Your task to perform on an android device: open app "YouTube Kids" Image 0: 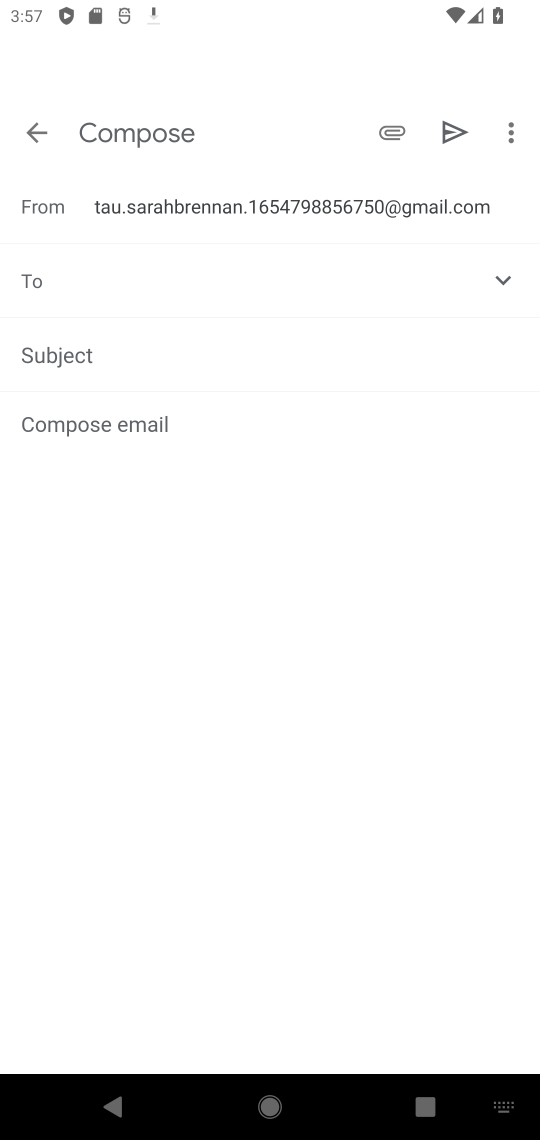
Step 0: press home button
Your task to perform on an android device: open app "YouTube Kids" Image 1: 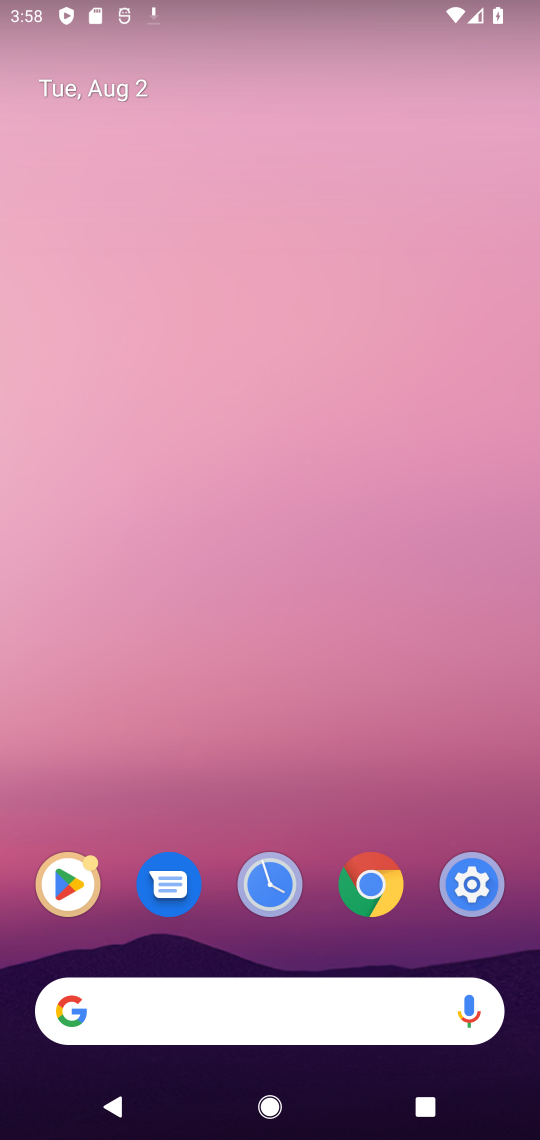
Step 1: click (65, 914)
Your task to perform on an android device: open app "YouTube Kids" Image 2: 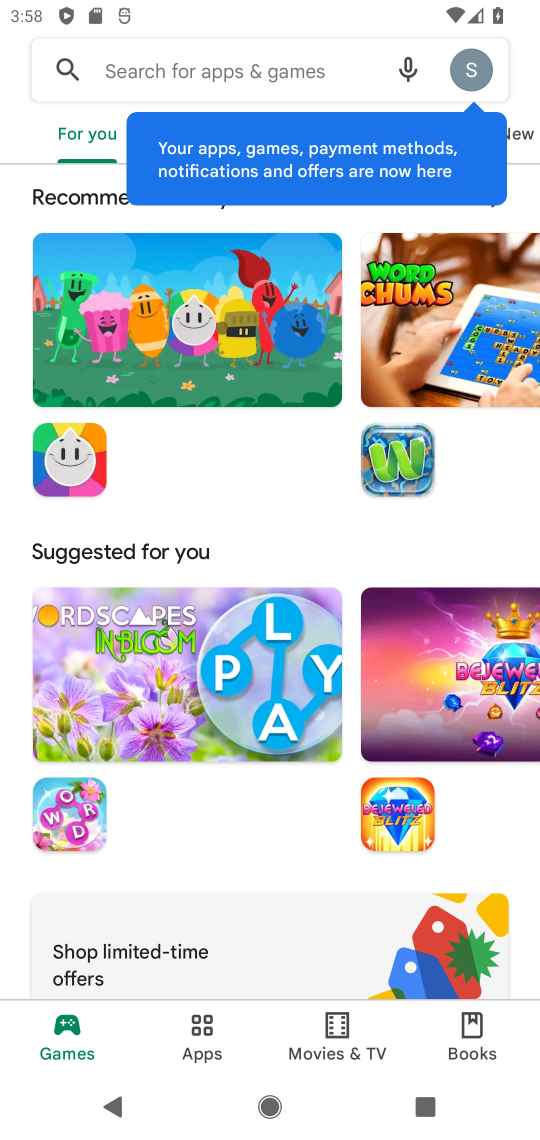
Step 2: click (184, 1043)
Your task to perform on an android device: open app "YouTube Kids" Image 3: 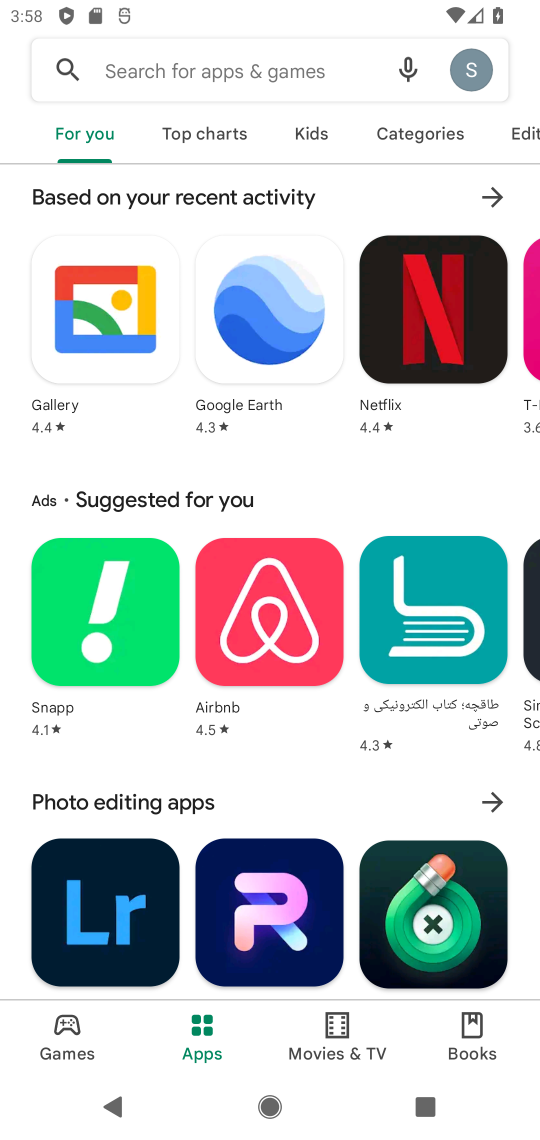
Step 3: click (233, 65)
Your task to perform on an android device: open app "YouTube Kids" Image 4: 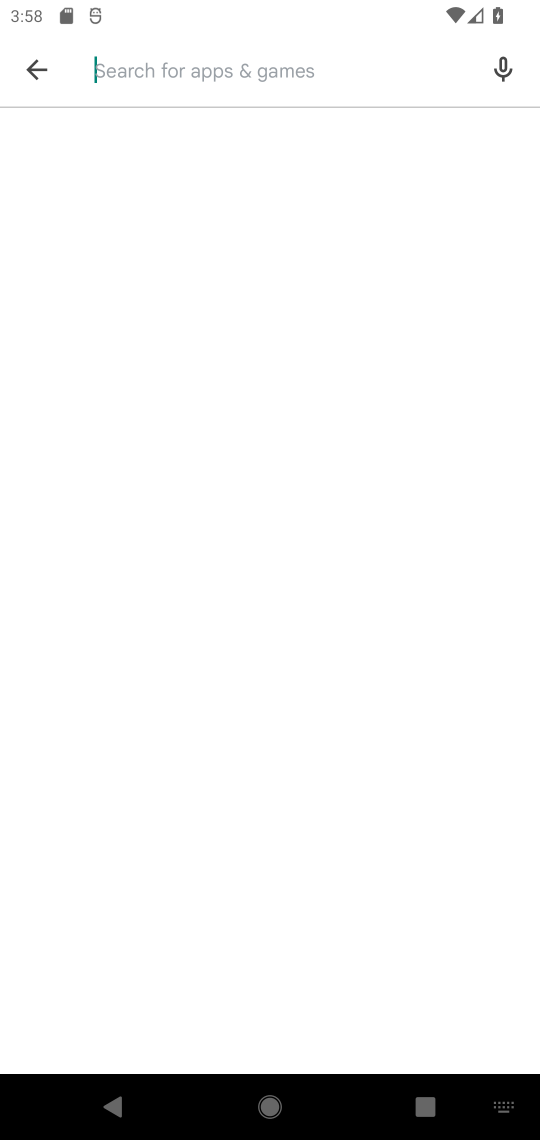
Step 4: type "YouTube Kids"
Your task to perform on an android device: open app "YouTube Kids" Image 5: 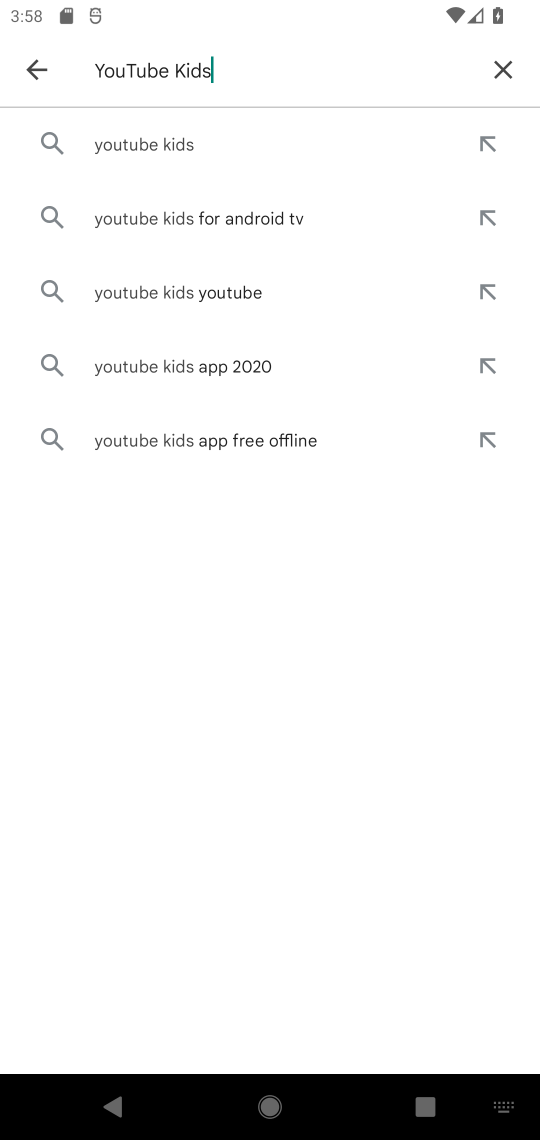
Step 5: click (159, 146)
Your task to perform on an android device: open app "YouTube Kids" Image 6: 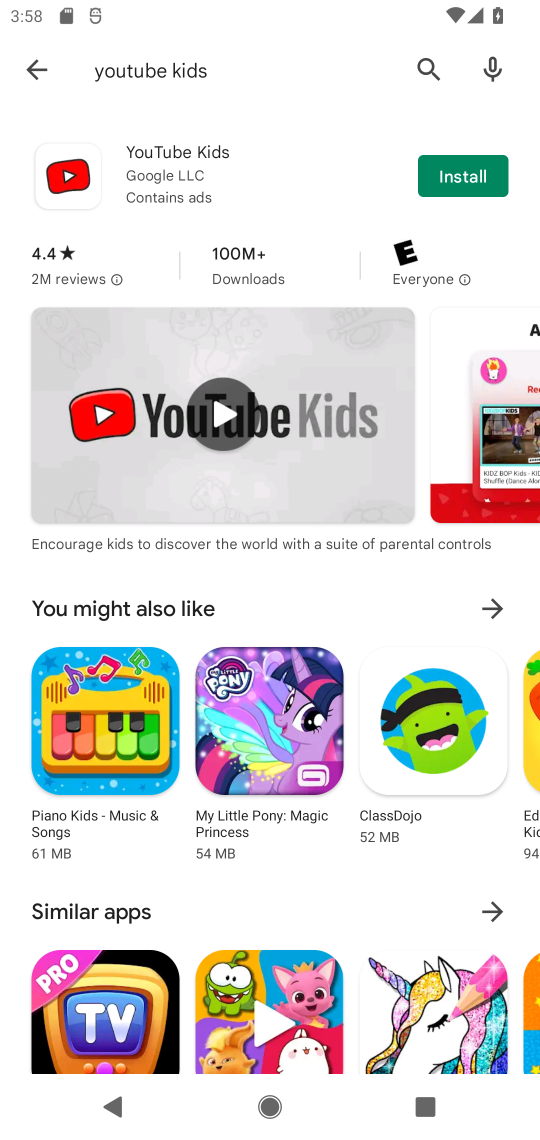
Step 6: click (444, 185)
Your task to perform on an android device: open app "YouTube Kids" Image 7: 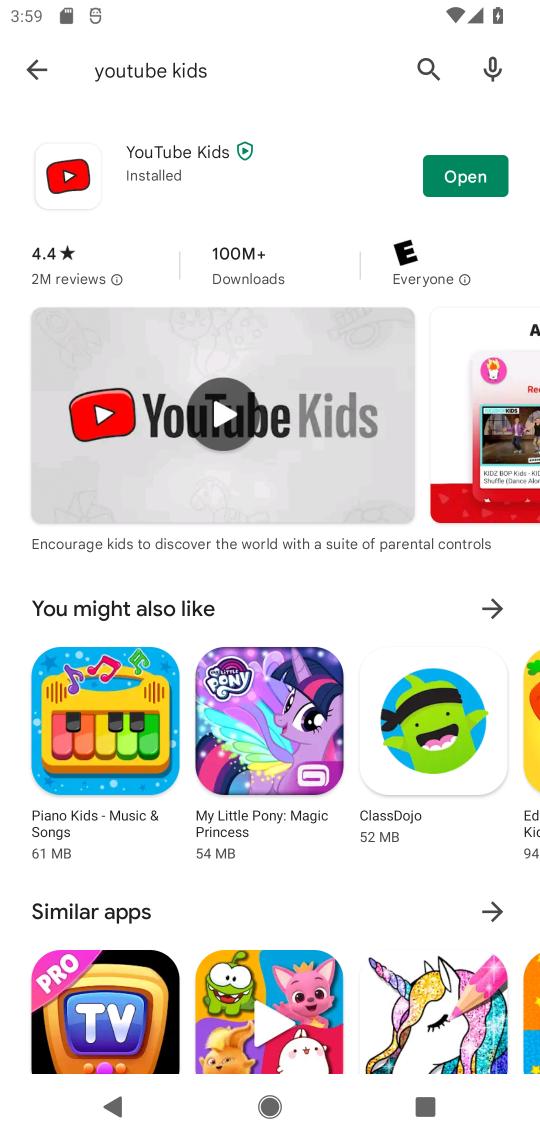
Step 7: click (453, 189)
Your task to perform on an android device: open app "YouTube Kids" Image 8: 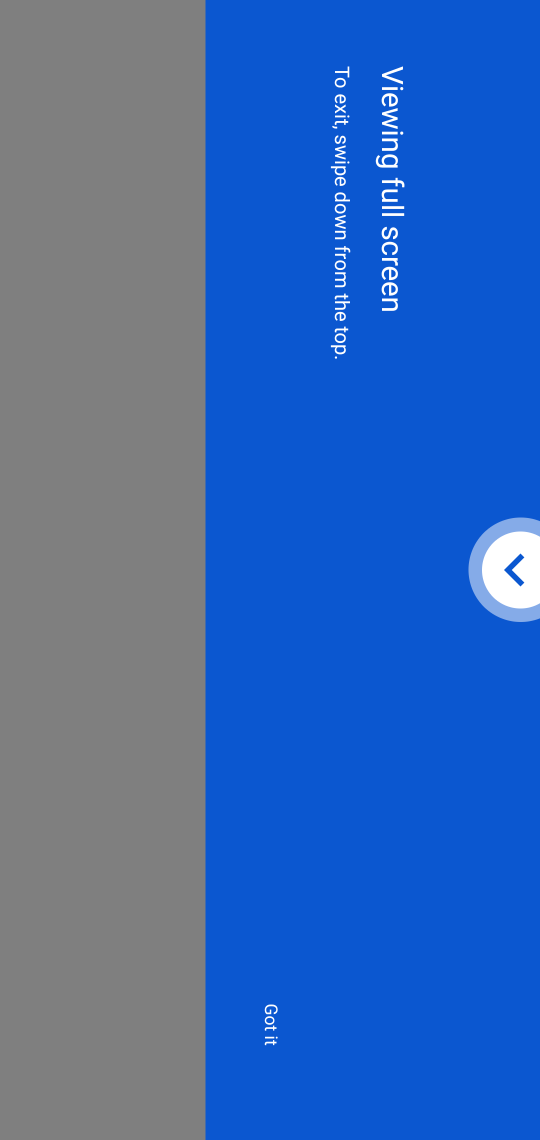
Step 8: task complete